Your task to perform on an android device: set the timer Image 0: 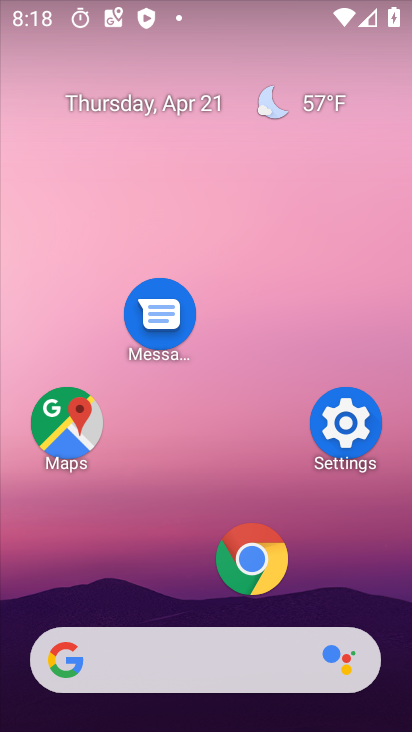
Step 0: drag from (264, 585) to (202, 107)
Your task to perform on an android device: set the timer Image 1: 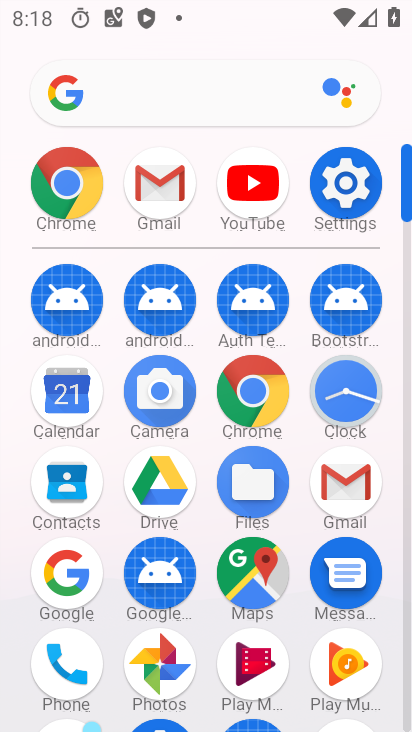
Step 1: click (340, 399)
Your task to perform on an android device: set the timer Image 2: 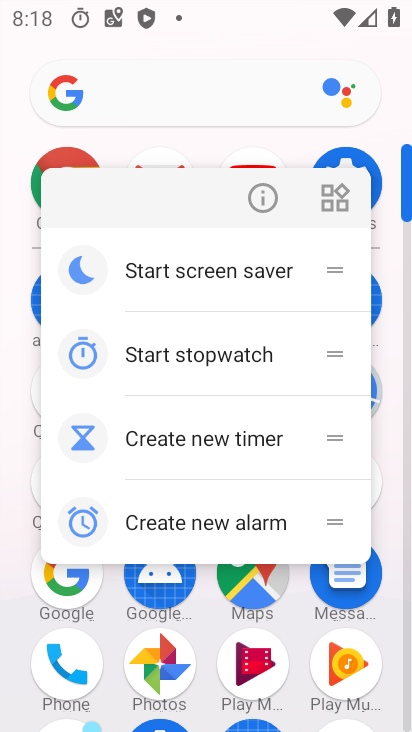
Step 2: click (393, 399)
Your task to perform on an android device: set the timer Image 3: 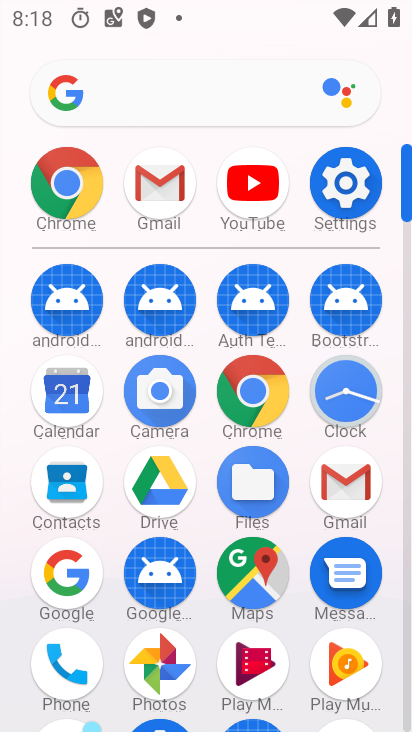
Step 3: click (312, 398)
Your task to perform on an android device: set the timer Image 4: 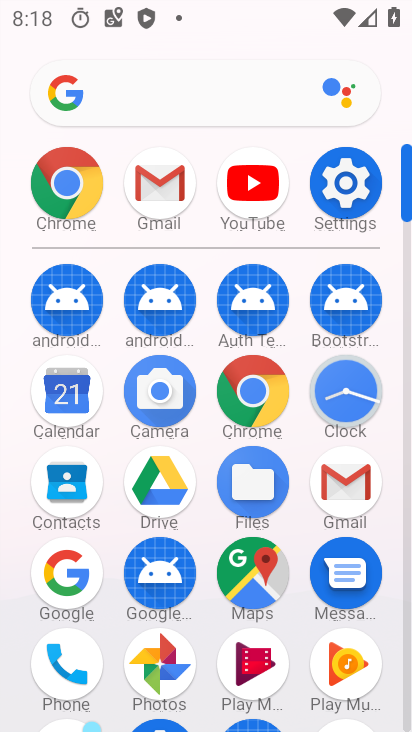
Step 4: click (329, 403)
Your task to perform on an android device: set the timer Image 5: 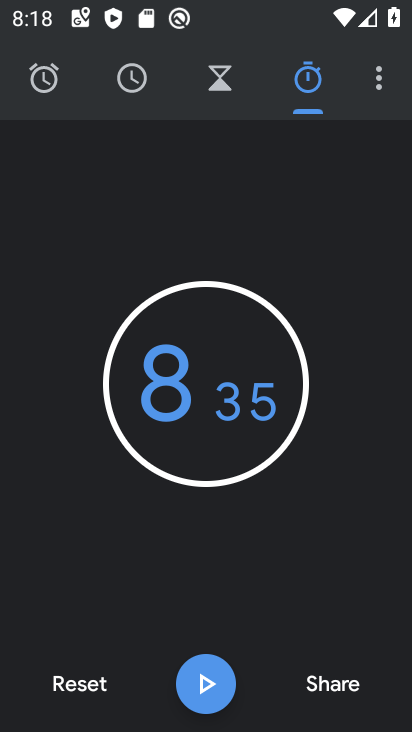
Step 5: click (200, 676)
Your task to perform on an android device: set the timer Image 6: 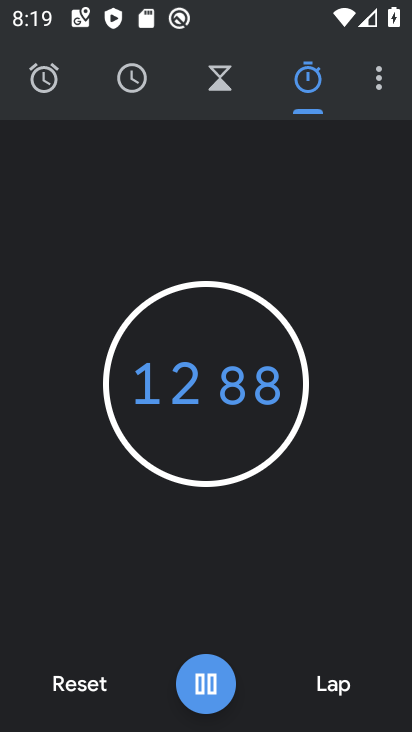
Step 6: click (209, 679)
Your task to perform on an android device: set the timer Image 7: 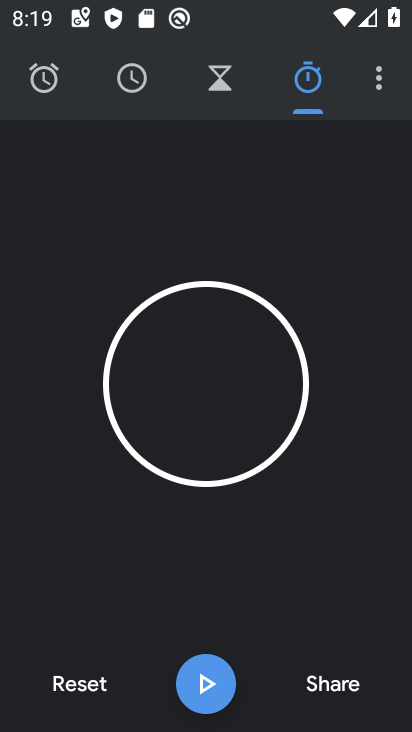
Step 7: task complete